Your task to perform on an android device: Open location settings Image 0: 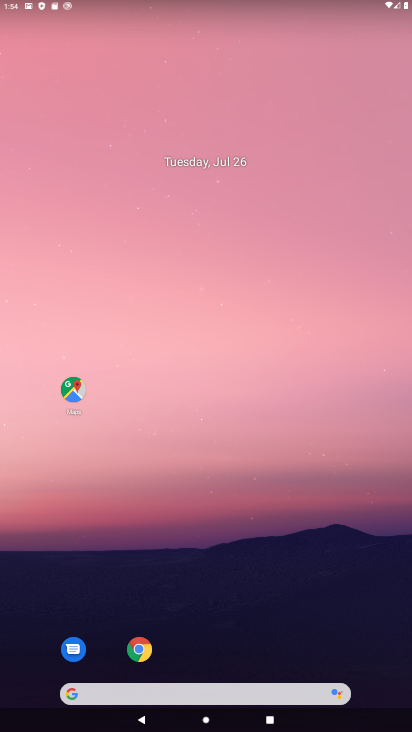
Step 0: drag from (171, 692) to (225, 199)
Your task to perform on an android device: Open location settings Image 1: 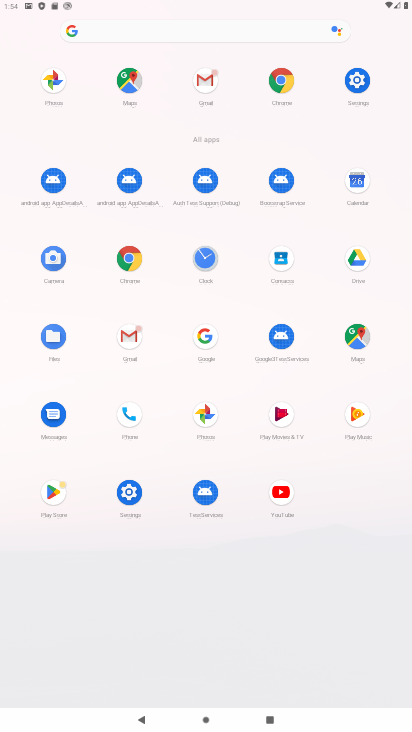
Step 1: click (358, 79)
Your task to perform on an android device: Open location settings Image 2: 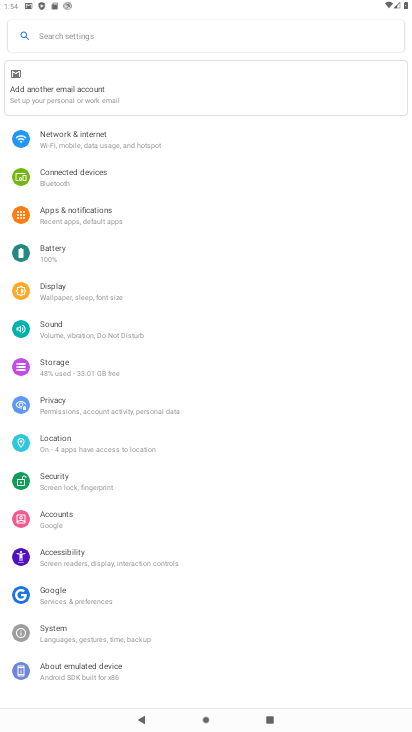
Step 2: click (68, 443)
Your task to perform on an android device: Open location settings Image 3: 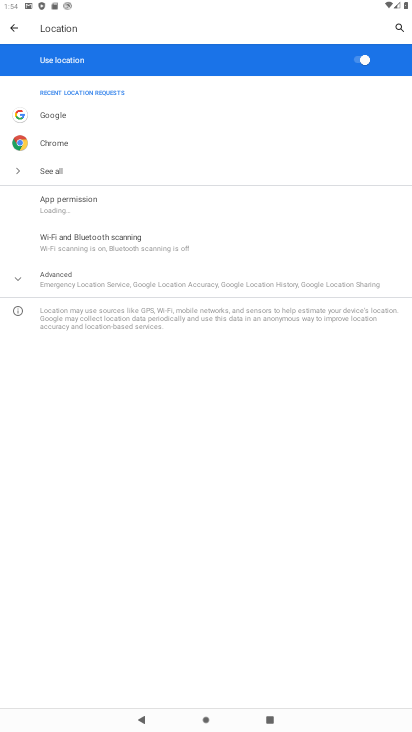
Step 3: task complete